Your task to perform on an android device: Open maps Image 0: 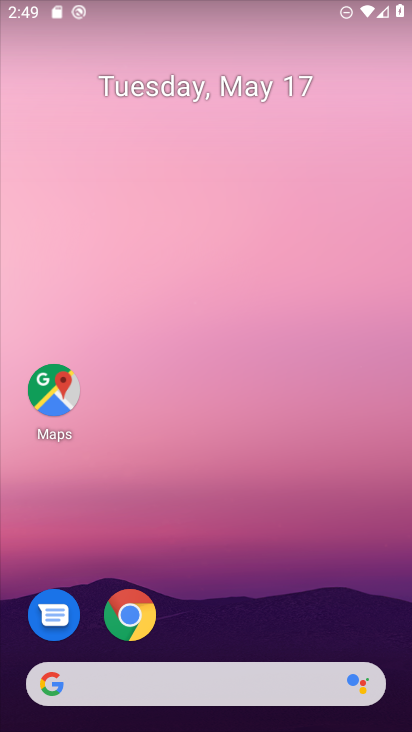
Step 0: drag from (226, 727) to (216, 166)
Your task to perform on an android device: Open maps Image 1: 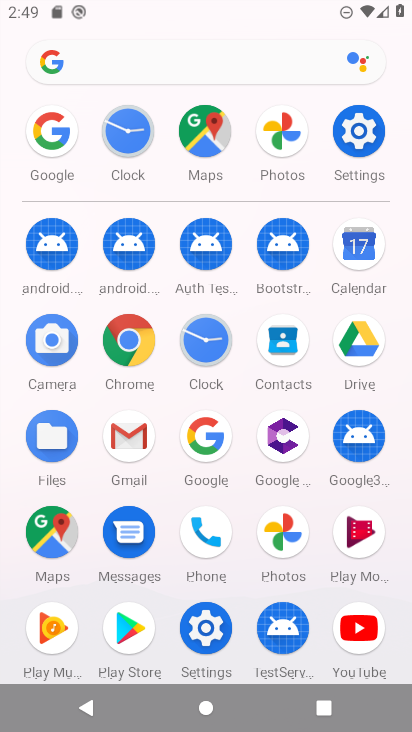
Step 1: click (48, 533)
Your task to perform on an android device: Open maps Image 2: 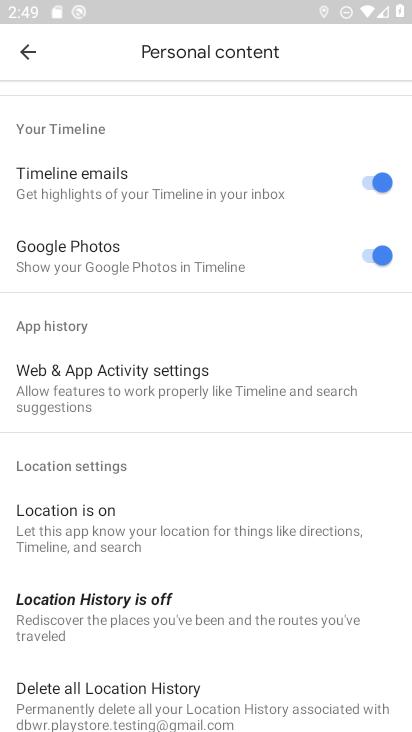
Step 2: click (27, 44)
Your task to perform on an android device: Open maps Image 3: 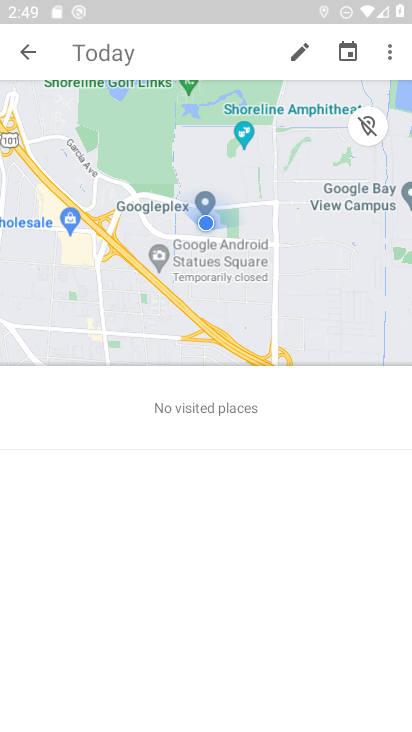
Step 3: task complete